Your task to perform on an android device: add a label to a message in the gmail app Image 0: 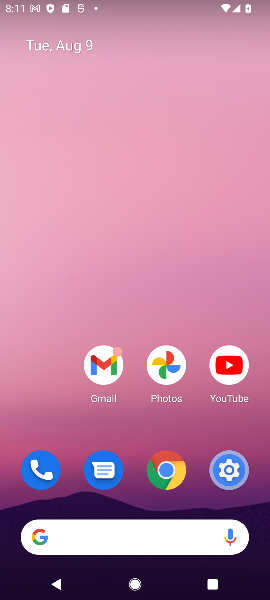
Step 0: drag from (72, 496) to (225, 8)
Your task to perform on an android device: add a label to a message in the gmail app Image 1: 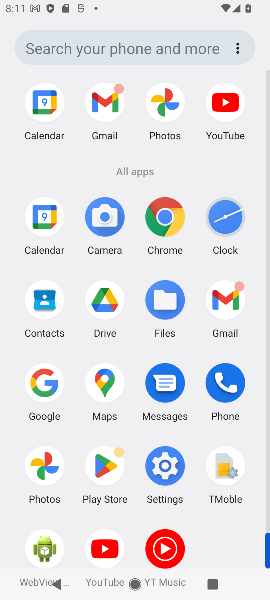
Step 1: click (228, 305)
Your task to perform on an android device: add a label to a message in the gmail app Image 2: 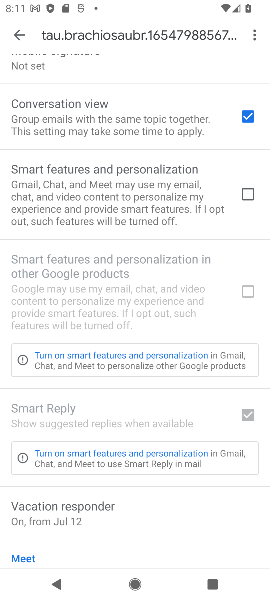
Step 2: click (25, 32)
Your task to perform on an android device: add a label to a message in the gmail app Image 3: 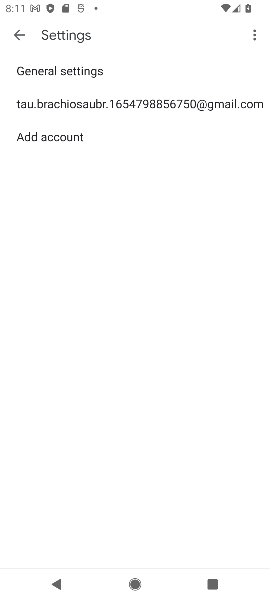
Step 3: click (18, 33)
Your task to perform on an android device: add a label to a message in the gmail app Image 4: 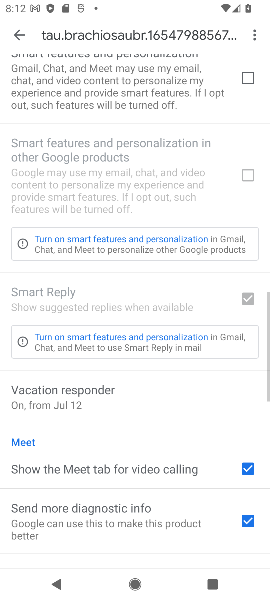
Step 4: click (21, 26)
Your task to perform on an android device: add a label to a message in the gmail app Image 5: 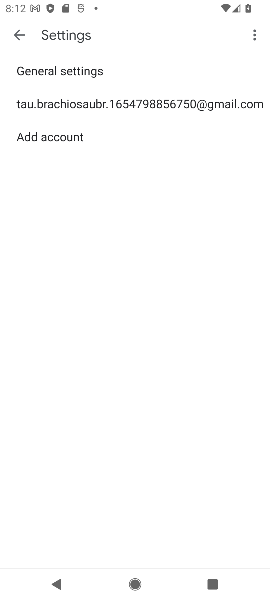
Step 5: click (21, 32)
Your task to perform on an android device: add a label to a message in the gmail app Image 6: 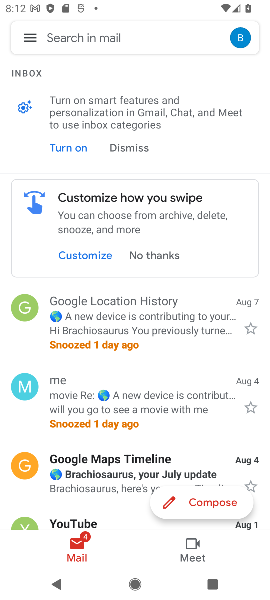
Step 6: click (25, 475)
Your task to perform on an android device: add a label to a message in the gmail app Image 7: 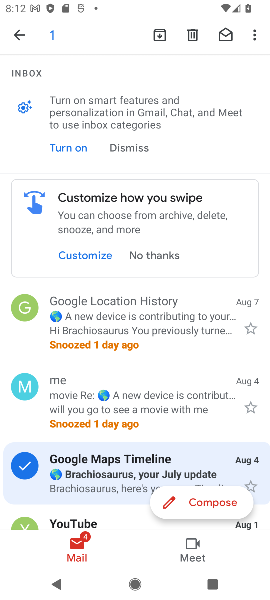
Step 7: click (253, 35)
Your task to perform on an android device: add a label to a message in the gmail app Image 8: 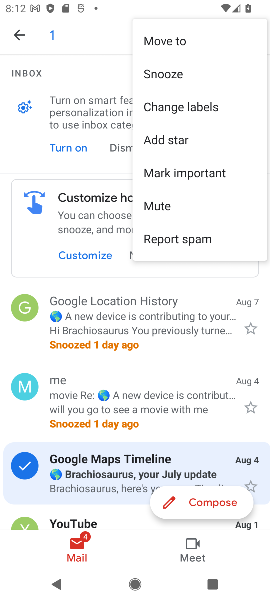
Step 8: click (212, 113)
Your task to perform on an android device: add a label to a message in the gmail app Image 9: 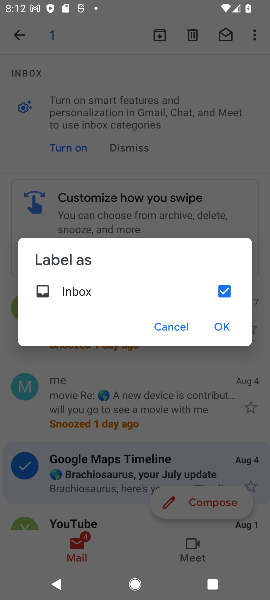
Step 9: click (200, 283)
Your task to perform on an android device: add a label to a message in the gmail app Image 10: 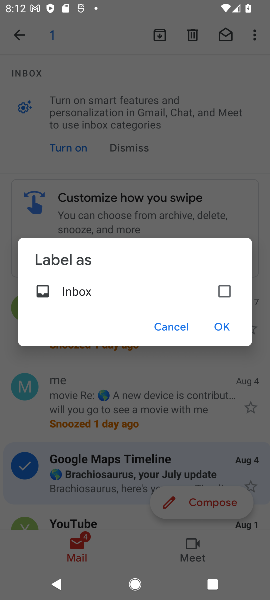
Step 10: click (222, 322)
Your task to perform on an android device: add a label to a message in the gmail app Image 11: 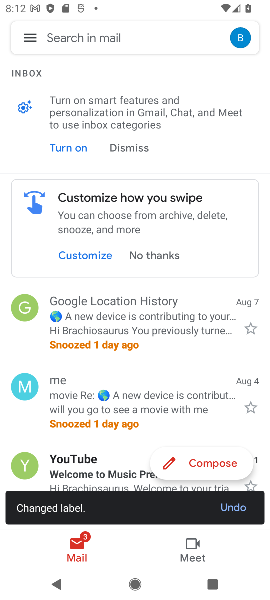
Step 11: task complete